Your task to perform on an android device: toggle notification dots Image 0: 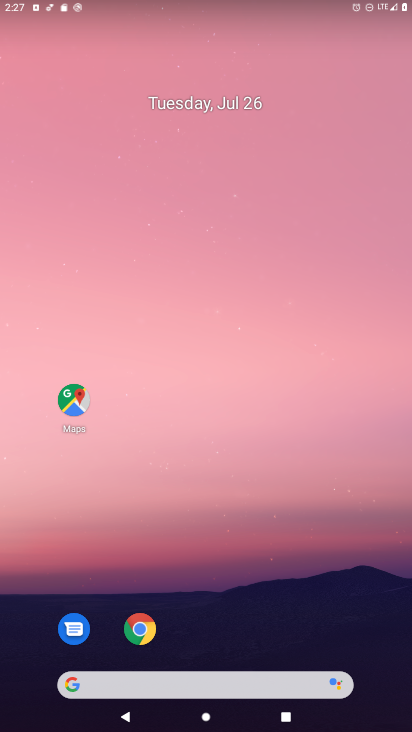
Step 0: drag from (396, 663) to (338, 219)
Your task to perform on an android device: toggle notification dots Image 1: 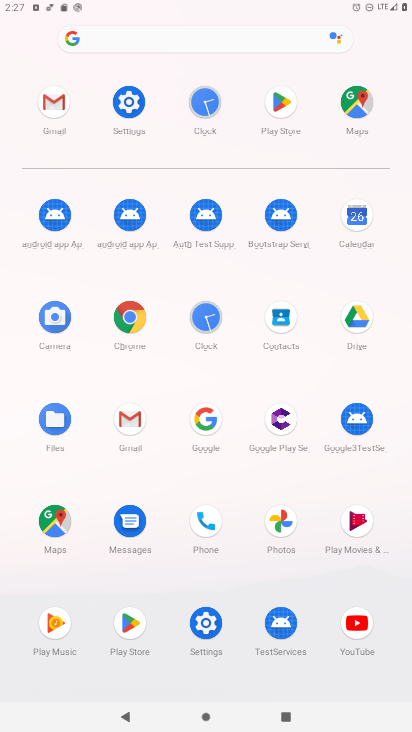
Step 1: click (208, 623)
Your task to perform on an android device: toggle notification dots Image 2: 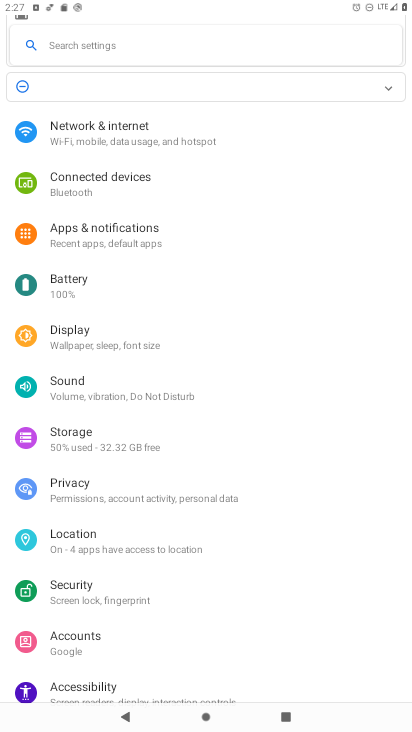
Step 2: click (92, 229)
Your task to perform on an android device: toggle notification dots Image 3: 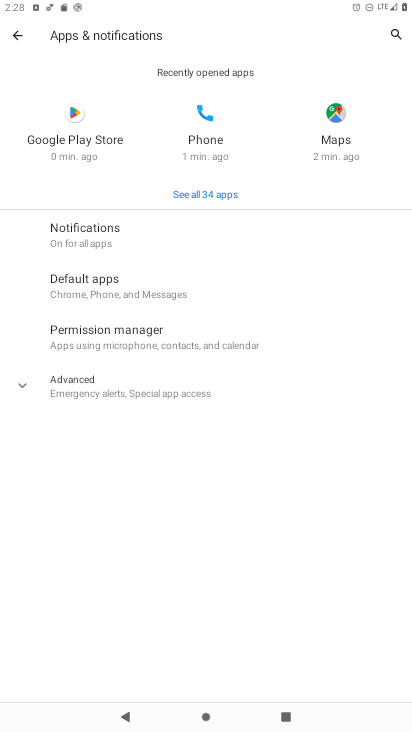
Step 3: click (92, 229)
Your task to perform on an android device: toggle notification dots Image 4: 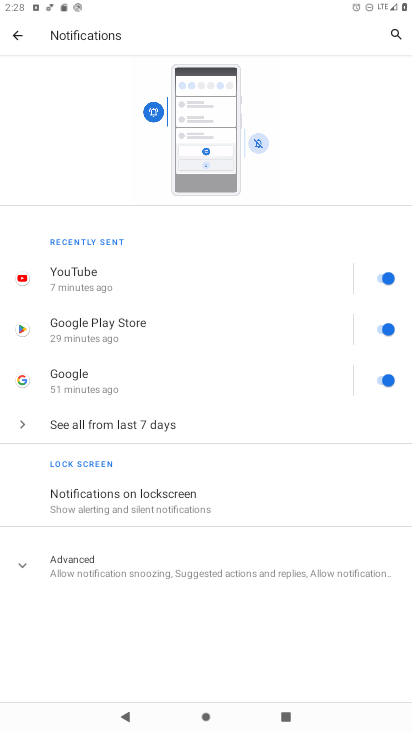
Step 4: click (30, 566)
Your task to perform on an android device: toggle notification dots Image 5: 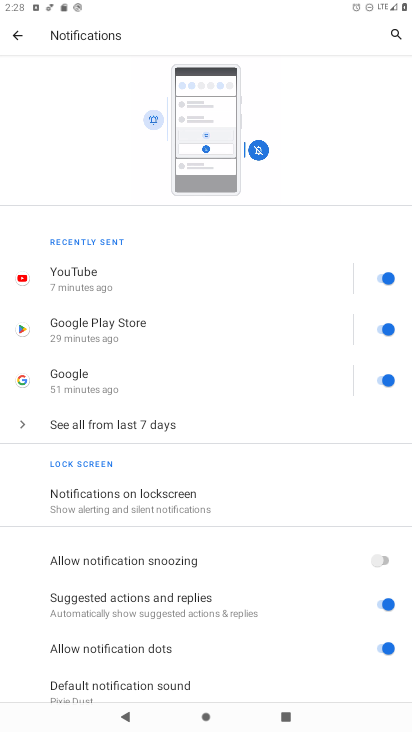
Step 5: click (377, 649)
Your task to perform on an android device: toggle notification dots Image 6: 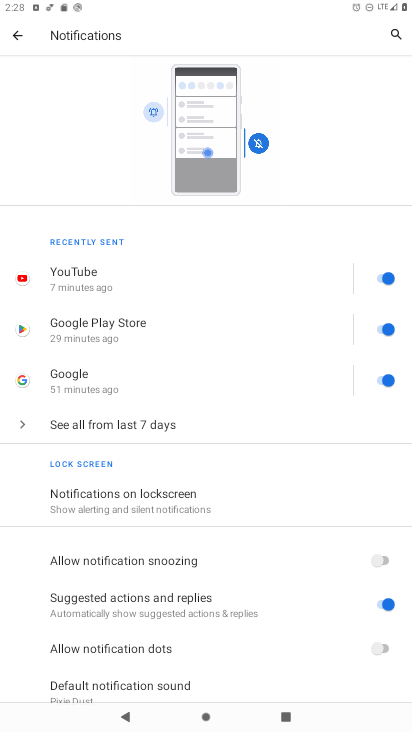
Step 6: task complete